Your task to perform on an android device: Open the web browser Image 0: 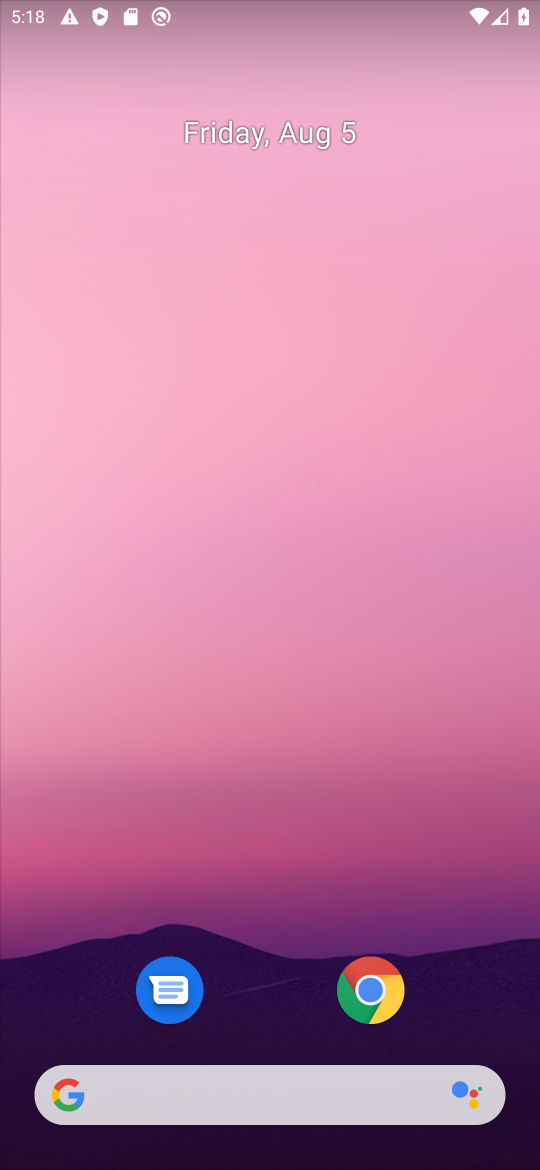
Step 0: click (353, 987)
Your task to perform on an android device: Open the web browser Image 1: 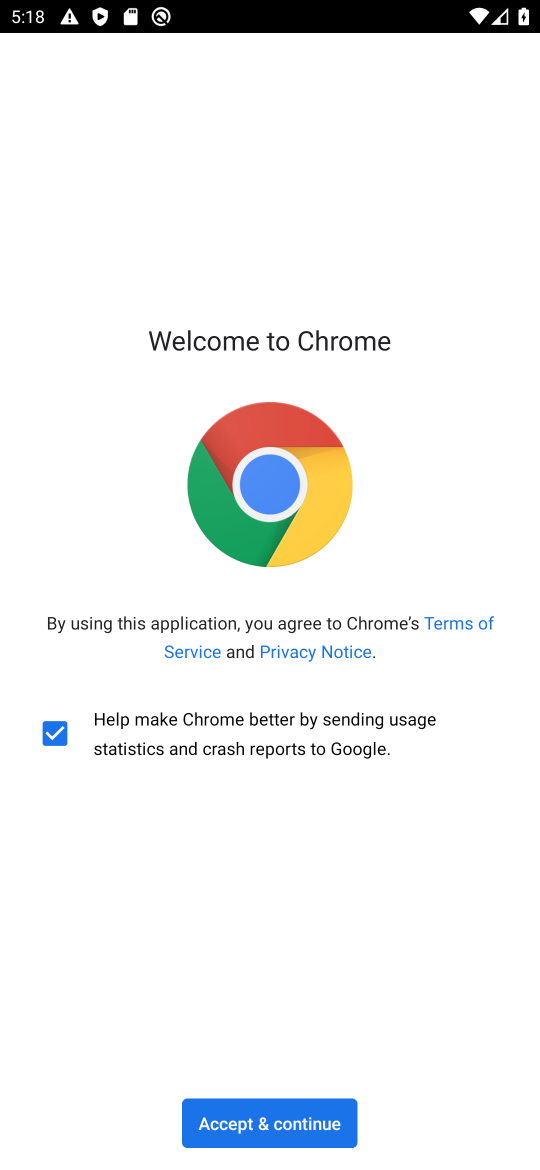
Step 1: click (208, 1129)
Your task to perform on an android device: Open the web browser Image 2: 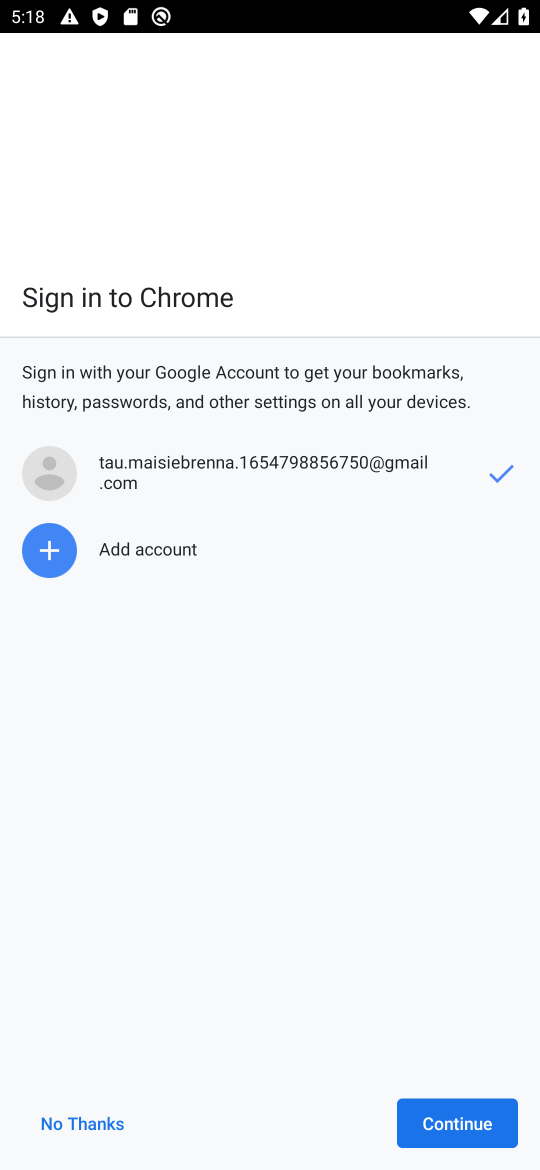
Step 2: click (434, 1132)
Your task to perform on an android device: Open the web browser Image 3: 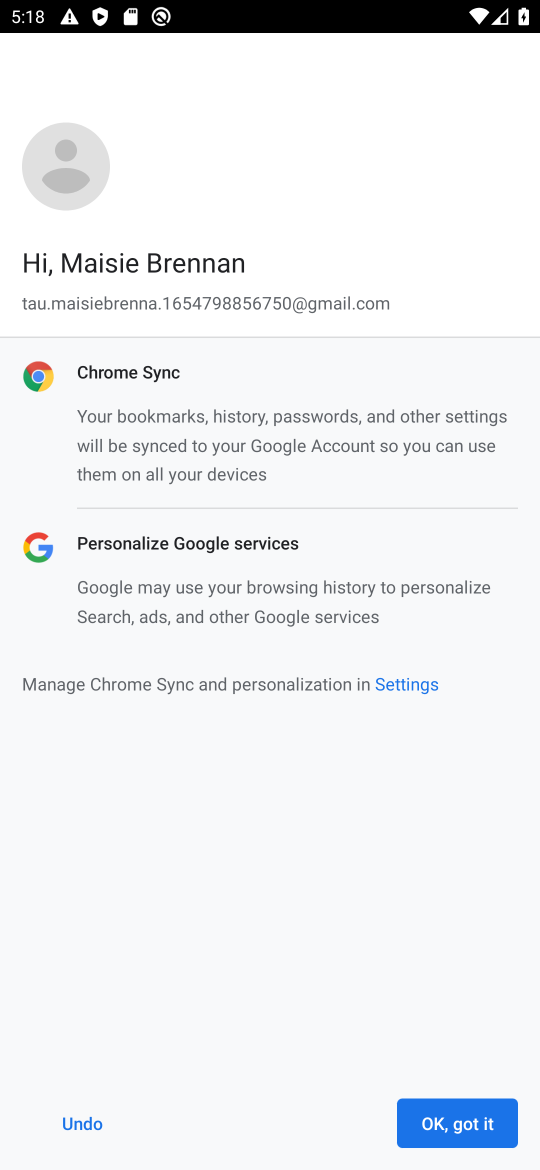
Step 3: click (434, 1132)
Your task to perform on an android device: Open the web browser Image 4: 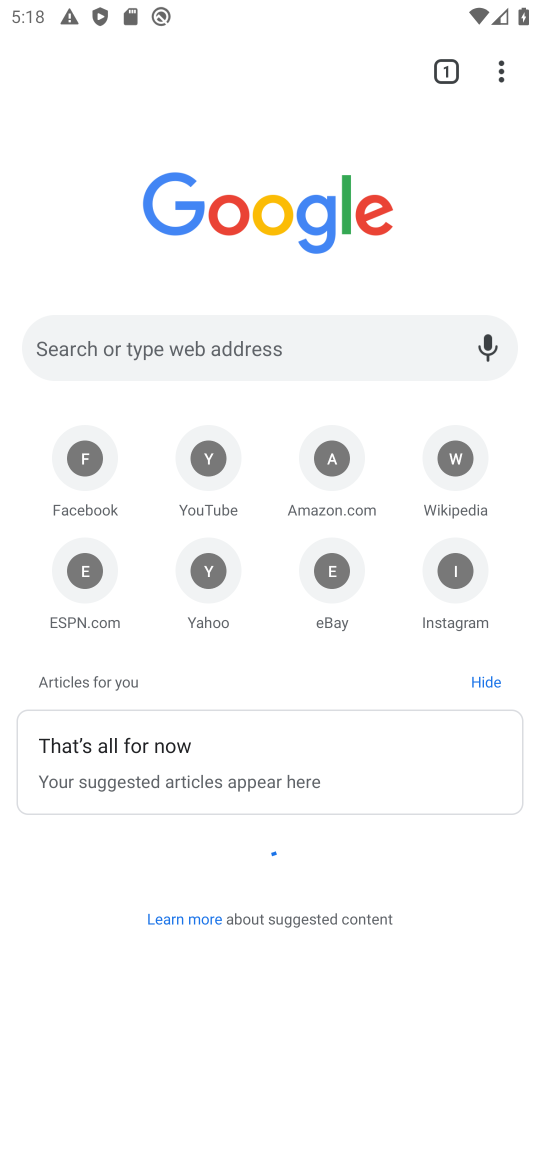
Step 4: task complete